Your task to perform on an android device: allow cookies in the chrome app Image 0: 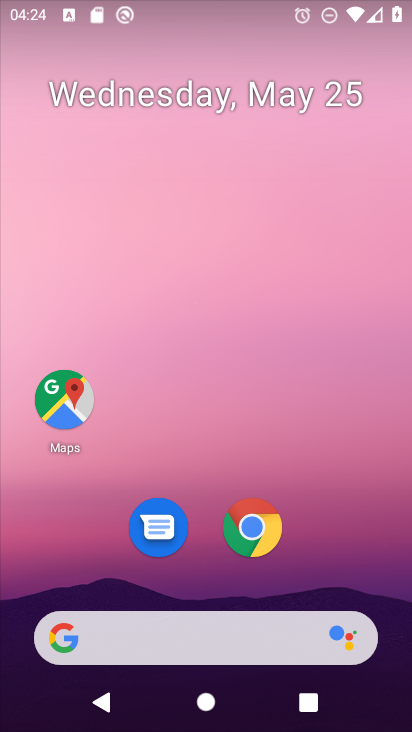
Step 0: drag from (344, 649) to (372, 4)
Your task to perform on an android device: allow cookies in the chrome app Image 1: 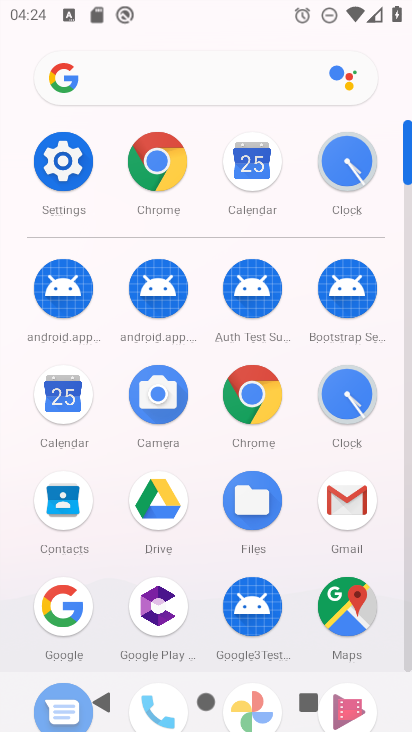
Step 1: click (281, 393)
Your task to perform on an android device: allow cookies in the chrome app Image 2: 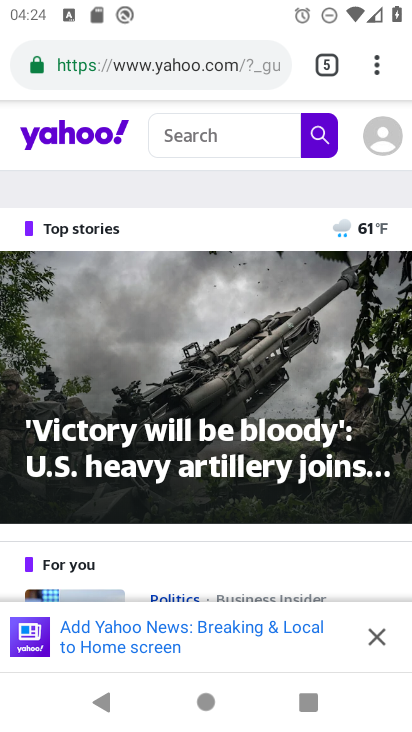
Step 2: press home button
Your task to perform on an android device: allow cookies in the chrome app Image 3: 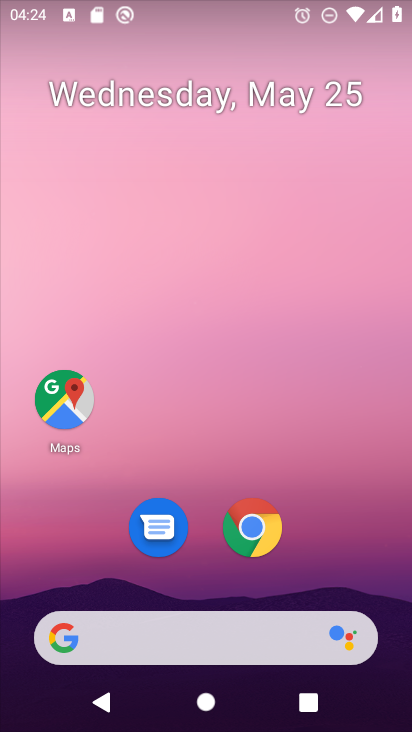
Step 3: drag from (259, 617) to (290, 46)
Your task to perform on an android device: allow cookies in the chrome app Image 4: 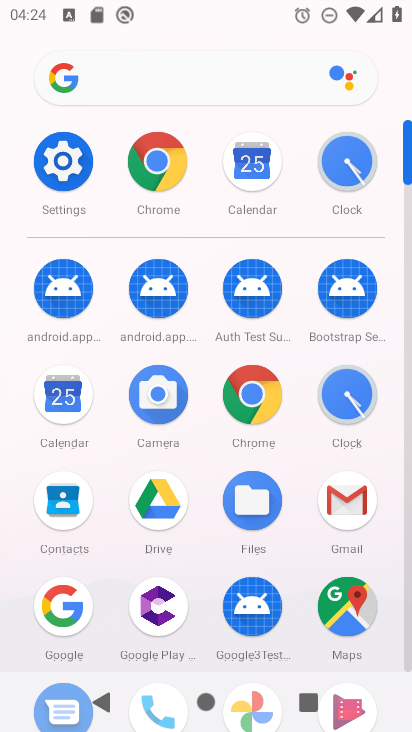
Step 4: click (259, 379)
Your task to perform on an android device: allow cookies in the chrome app Image 5: 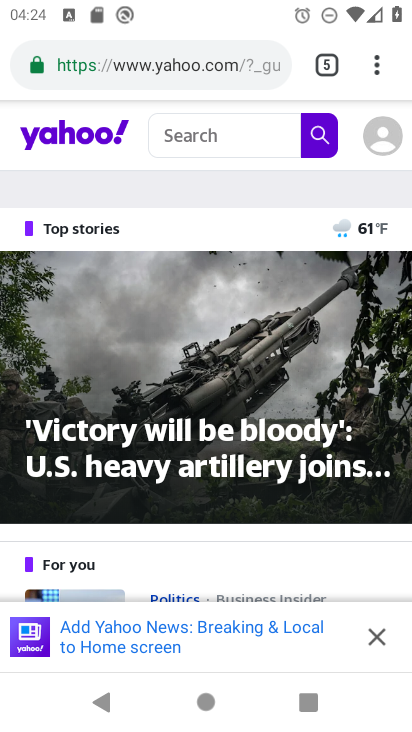
Step 5: drag from (388, 65) to (239, 586)
Your task to perform on an android device: allow cookies in the chrome app Image 6: 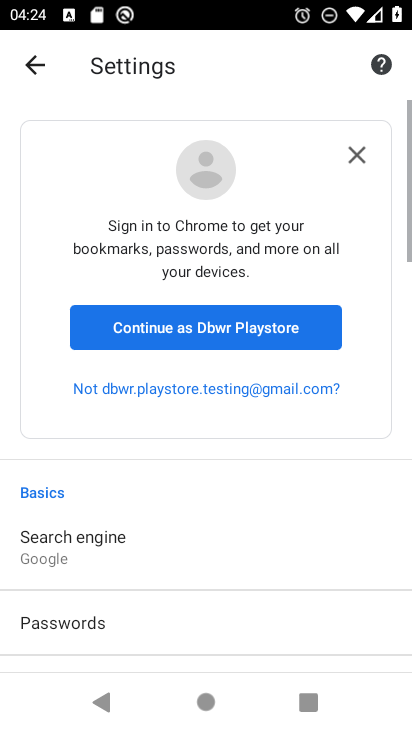
Step 6: drag from (170, 617) to (268, 101)
Your task to perform on an android device: allow cookies in the chrome app Image 7: 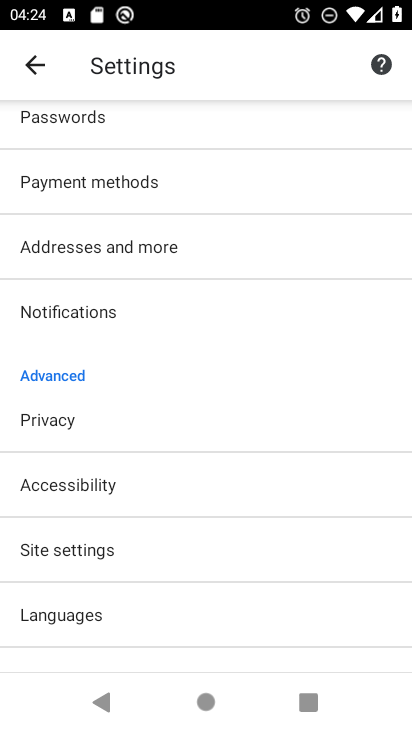
Step 7: click (213, 571)
Your task to perform on an android device: allow cookies in the chrome app Image 8: 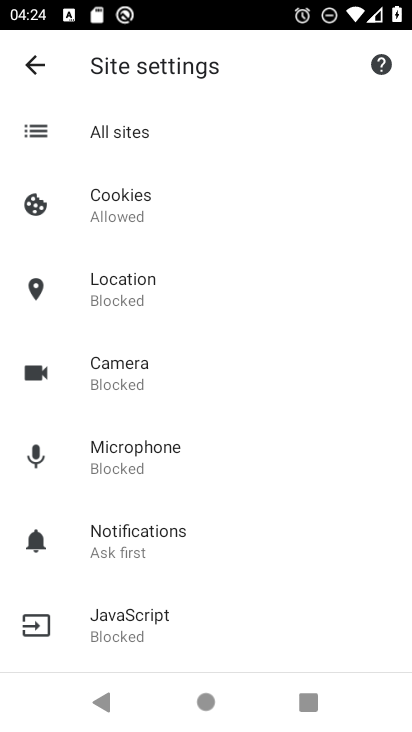
Step 8: click (139, 203)
Your task to perform on an android device: allow cookies in the chrome app Image 9: 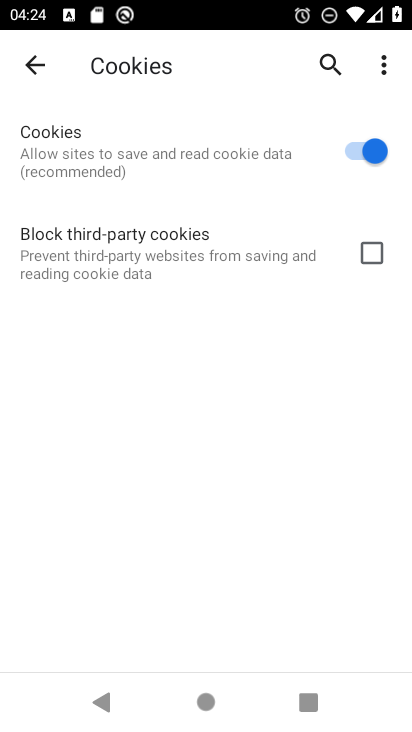
Step 9: task complete